Your task to perform on an android device: What's the weather? Image 0: 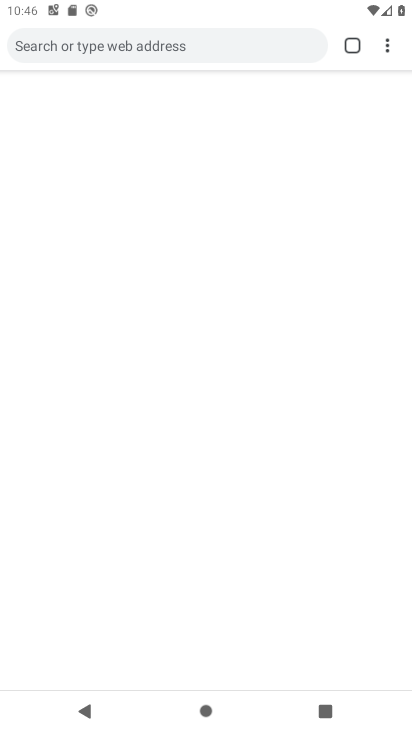
Step 0: drag from (225, 595) to (232, 196)
Your task to perform on an android device: What's the weather? Image 1: 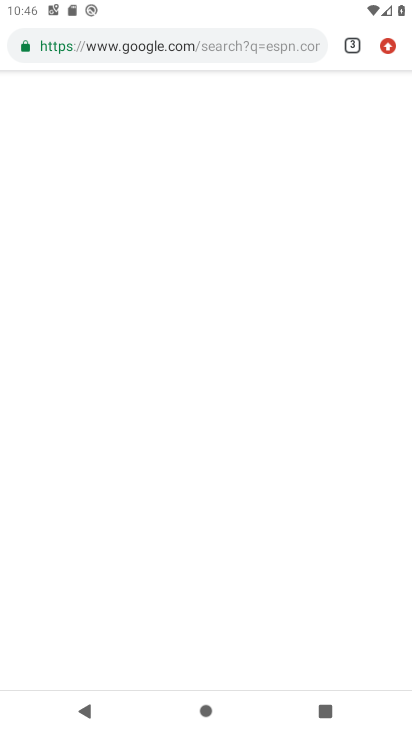
Step 1: press home button
Your task to perform on an android device: What's the weather? Image 2: 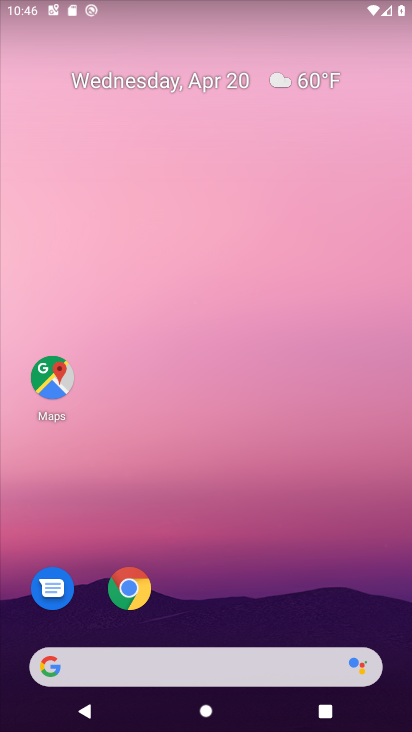
Step 2: click (286, 79)
Your task to perform on an android device: What's the weather? Image 3: 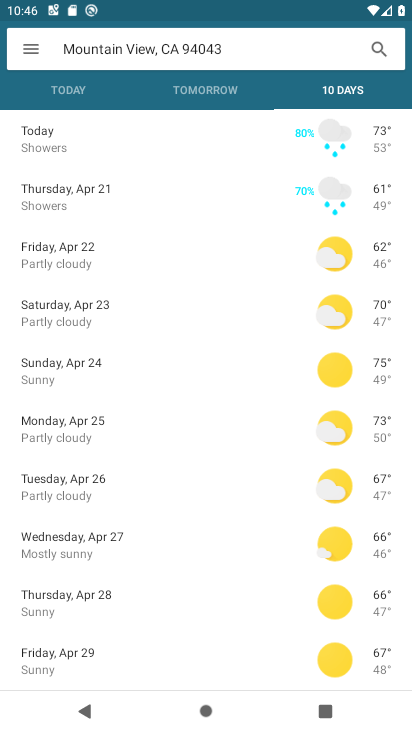
Step 3: click (77, 91)
Your task to perform on an android device: What's the weather? Image 4: 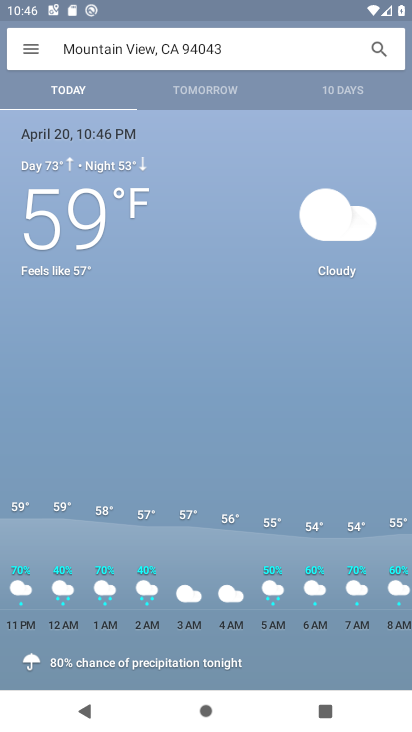
Step 4: task complete